Your task to perform on an android device: Show me popular videos on Youtube Image 0: 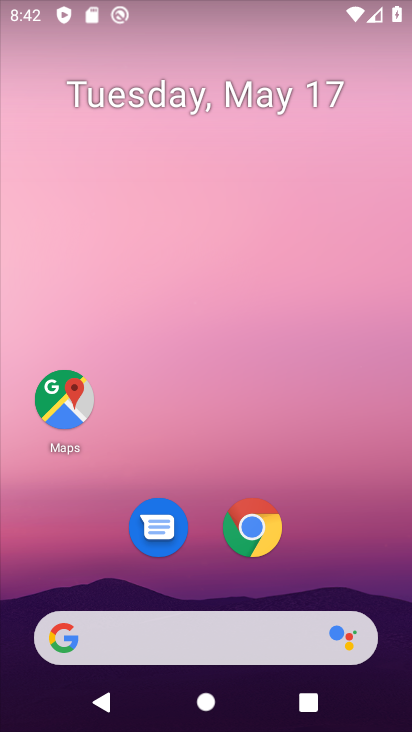
Step 0: drag from (336, 556) to (241, 1)
Your task to perform on an android device: Show me popular videos on Youtube Image 1: 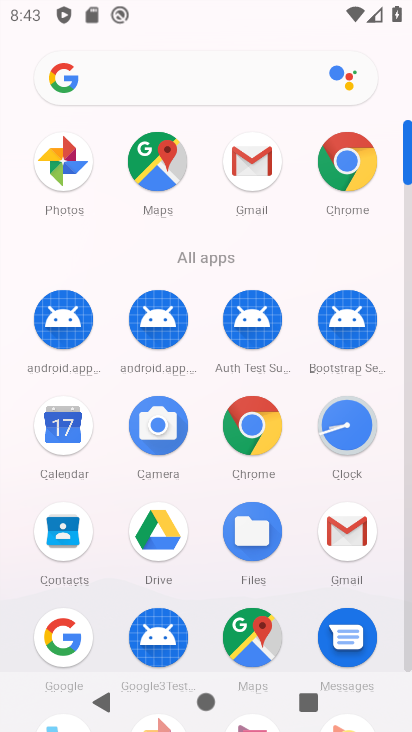
Step 1: click (411, 651)
Your task to perform on an android device: Show me popular videos on Youtube Image 2: 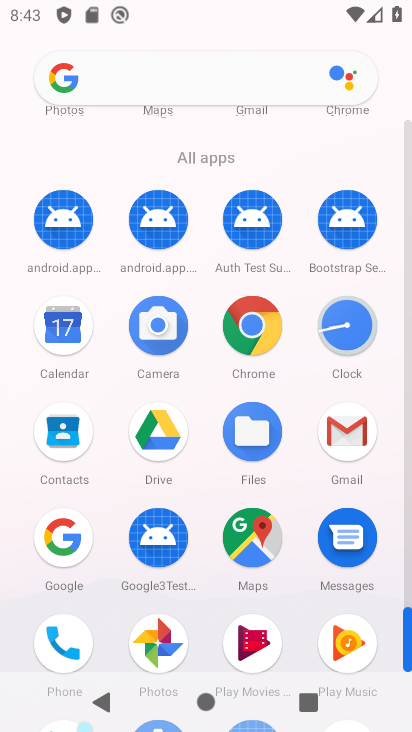
Step 2: drag from (409, 648) to (335, 712)
Your task to perform on an android device: Show me popular videos on Youtube Image 3: 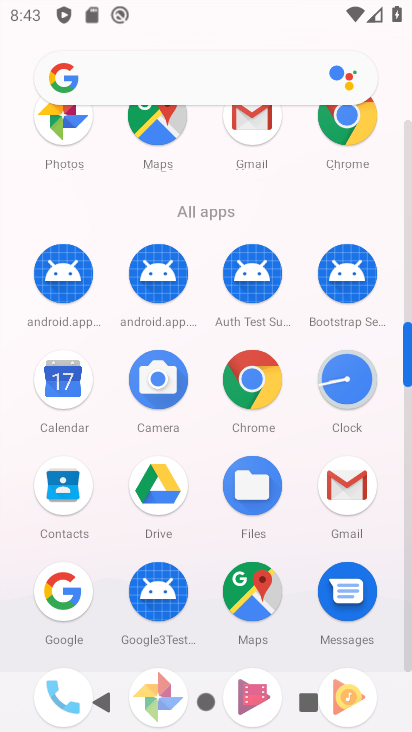
Step 3: click (407, 664)
Your task to perform on an android device: Show me popular videos on Youtube Image 4: 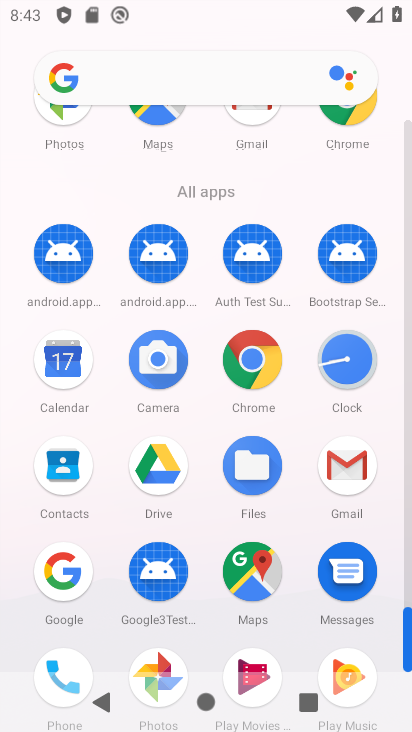
Step 4: click (407, 664)
Your task to perform on an android device: Show me popular videos on Youtube Image 5: 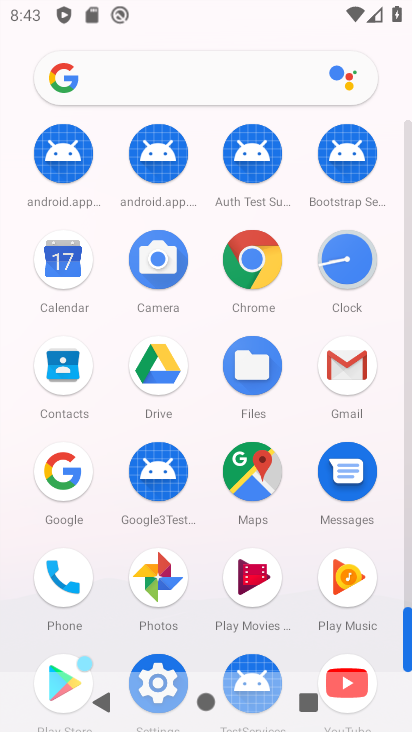
Step 5: click (407, 664)
Your task to perform on an android device: Show me popular videos on Youtube Image 6: 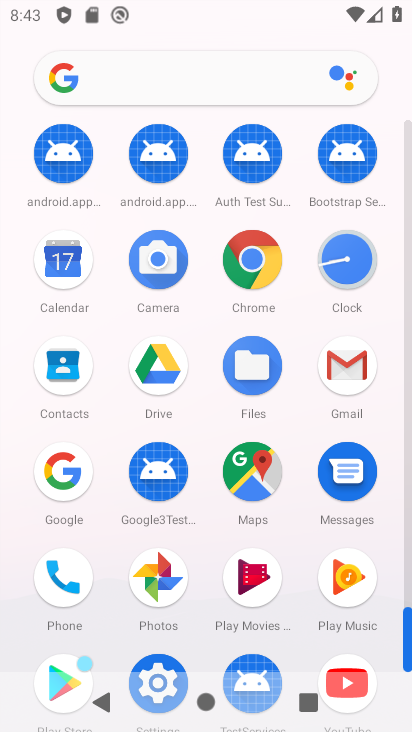
Step 6: click (353, 664)
Your task to perform on an android device: Show me popular videos on Youtube Image 7: 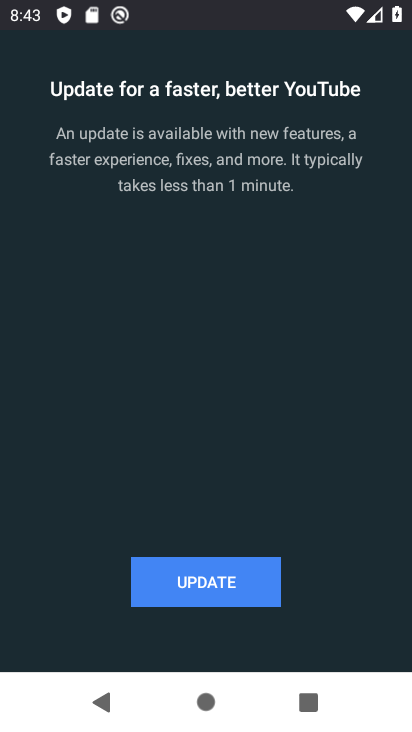
Step 7: click (258, 594)
Your task to perform on an android device: Show me popular videos on Youtube Image 8: 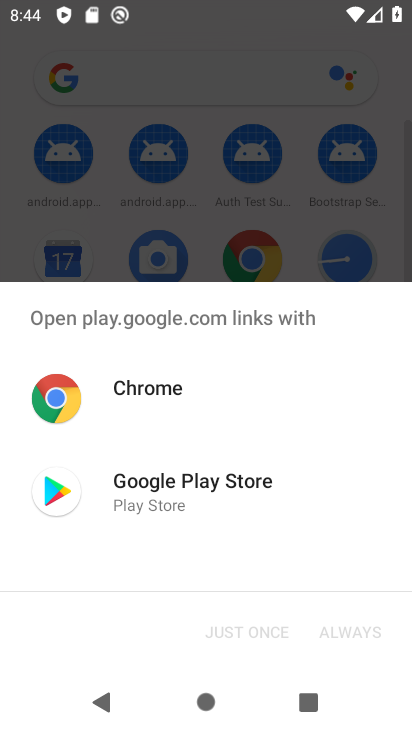
Step 8: click (172, 498)
Your task to perform on an android device: Show me popular videos on Youtube Image 9: 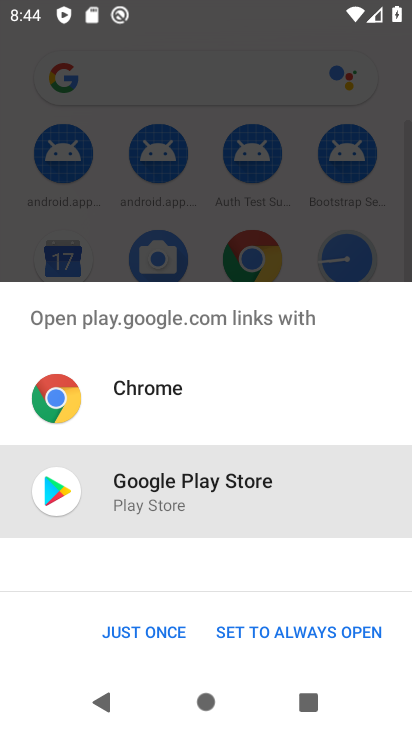
Step 9: click (156, 626)
Your task to perform on an android device: Show me popular videos on Youtube Image 10: 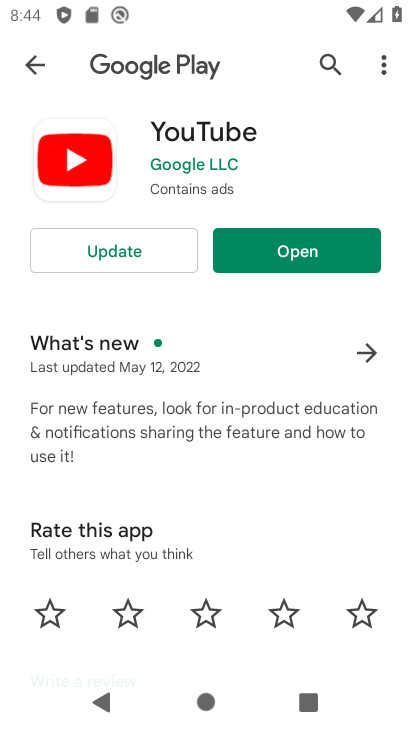
Step 10: click (128, 257)
Your task to perform on an android device: Show me popular videos on Youtube Image 11: 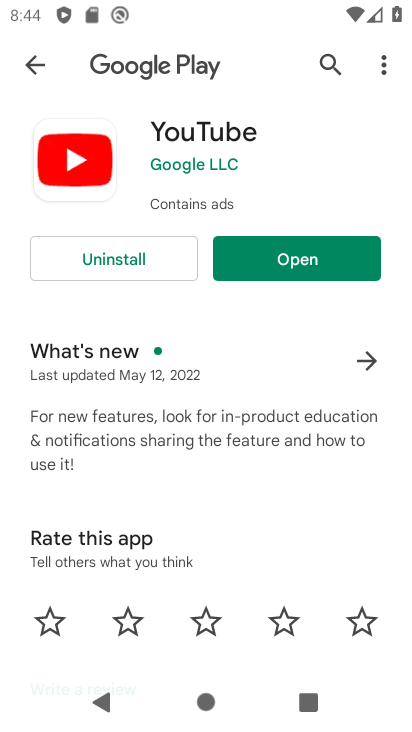
Step 11: click (303, 256)
Your task to perform on an android device: Show me popular videos on Youtube Image 12: 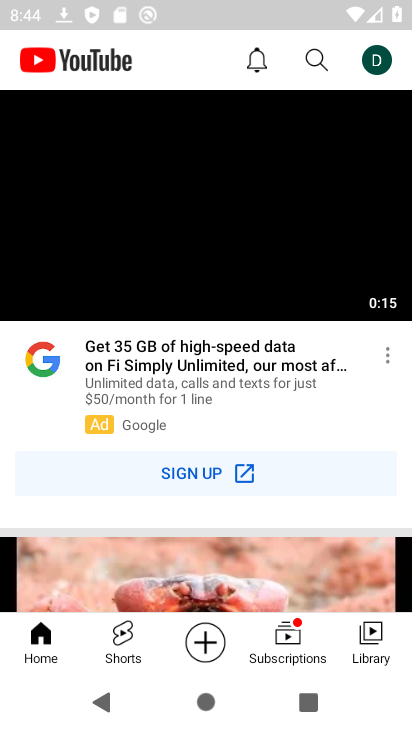
Step 12: task complete